Your task to perform on an android device: Open the Play Movies app and select the watchlist tab. Image 0: 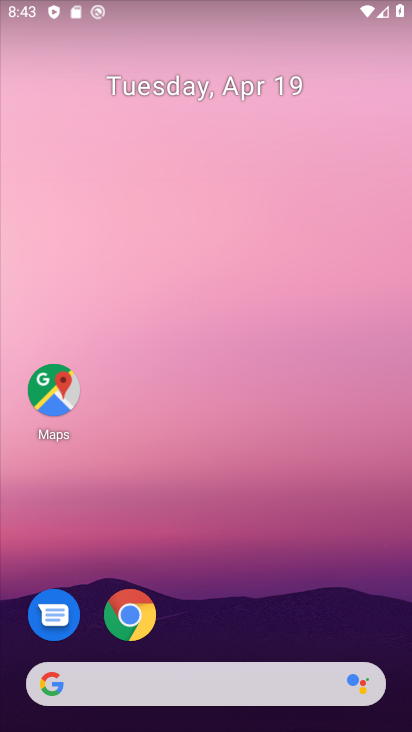
Step 0: drag from (240, 602) to (268, 41)
Your task to perform on an android device: Open the Play Movies app and select the watchlist tab. Image 1: 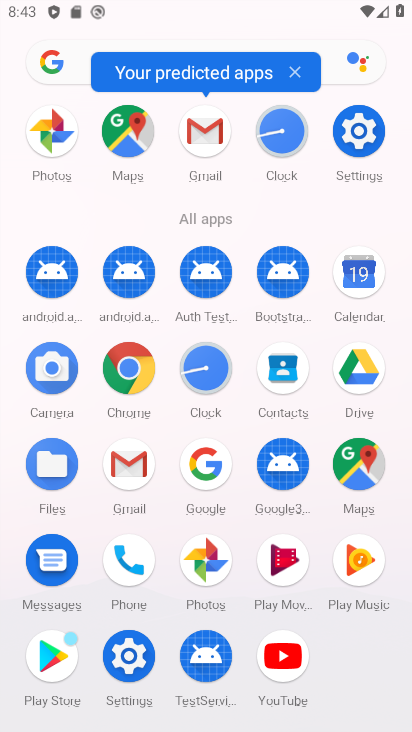
Step 1: click (275, 567)
Your task to perform on an android device: Open the Play Movies app and select the watchlist tab. Image 2: 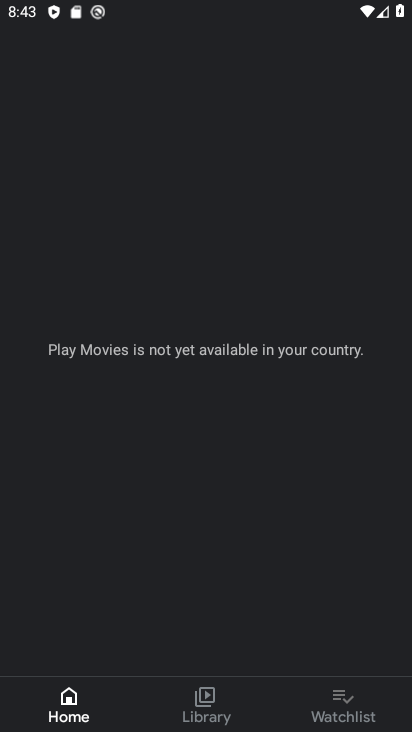
Step 2: click (346, 697)
Your task to perform on an android device: Open the Play Movies app and select the watchlist tab. Image 3: 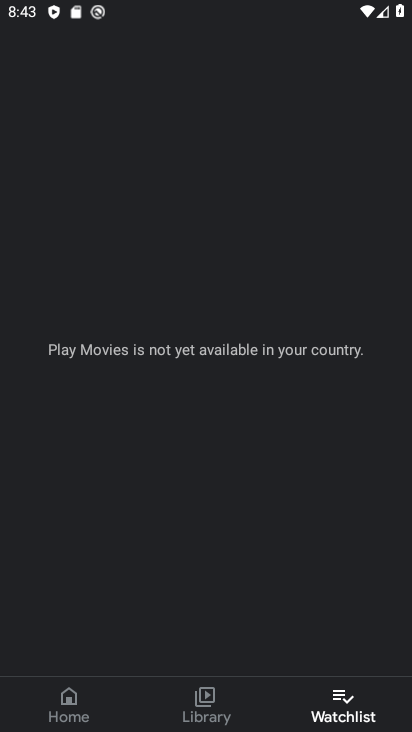
Step 3: task complete